Your task to perform on an android device: Open Reddit.com Image 0: 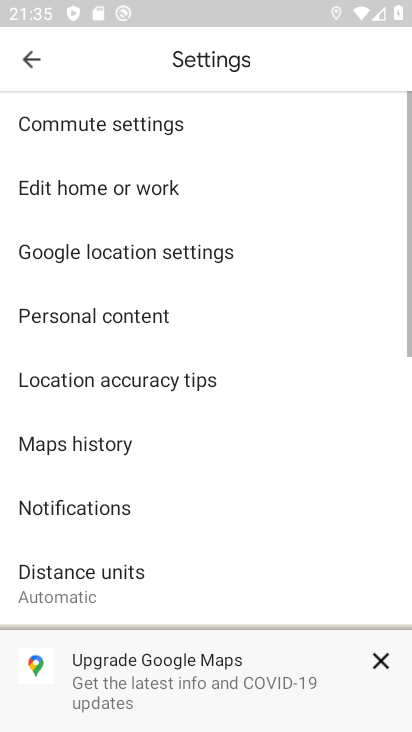
Step 0: press home button
Your task to perform on an android device: Open Reddit.com Image 1: 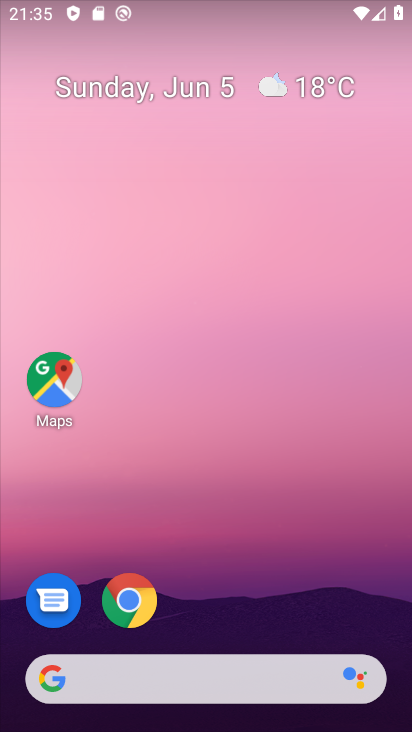
Step 1: click (129, 599)
Your task to perform on an android device: Open Reddit.com Image 2: 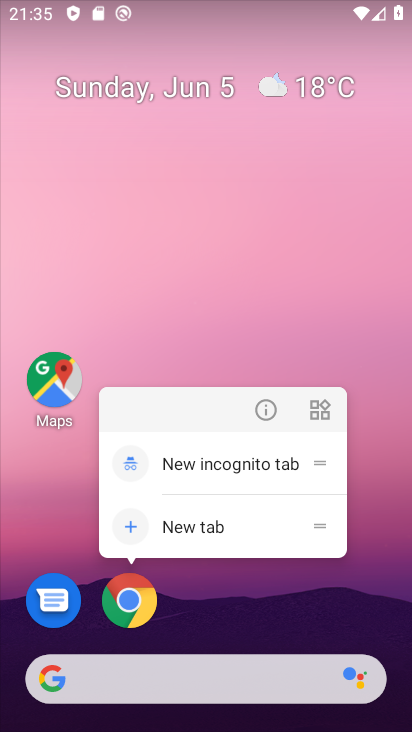
Step 2: click (129, 599)
Your task to perform on an android device: Open Reddit.com Image 3: 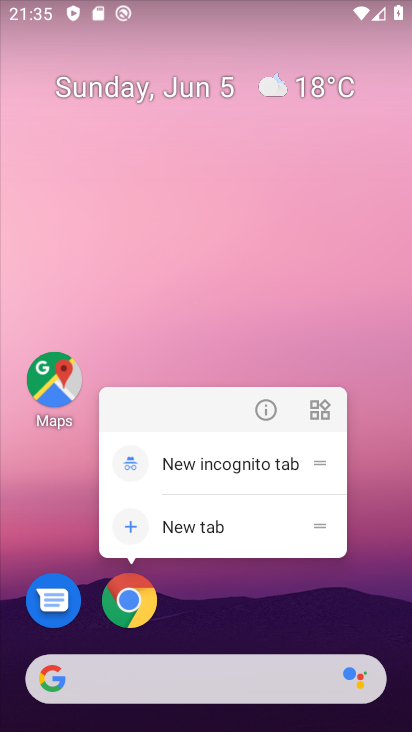
Step 3: click (214, 611)
Your task to perform on an android device: Open Reddit.com Image 4: 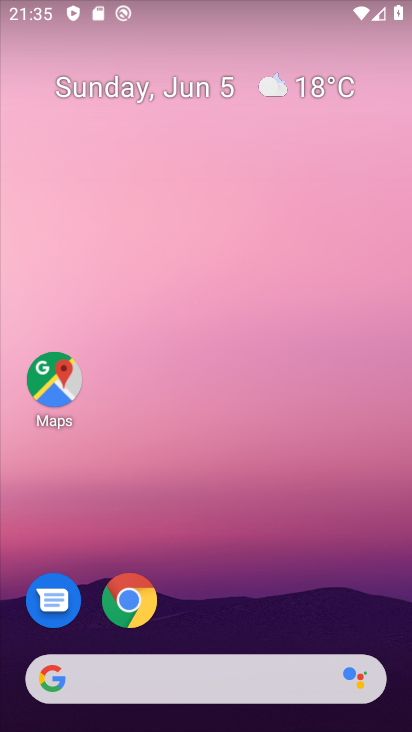
Step 4: drag from (267, 612) to (297, 147)
Your task to perform on an android device: Open Reddit.com Image 5: 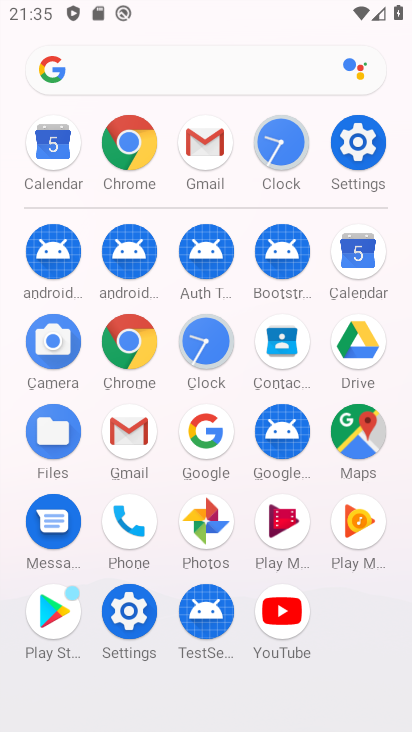
Step 5: click (127, 342)
Your task to perform on an android device: Open Reddit.com Image 6: 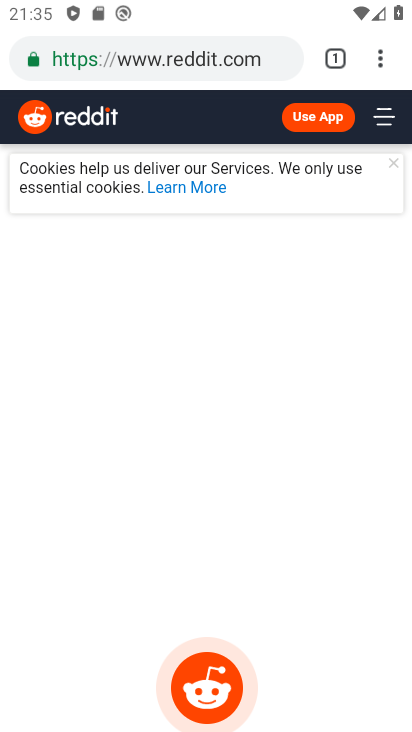
Step 6: task complete